Your task to perform on an android device: turn off wifi Image 0: 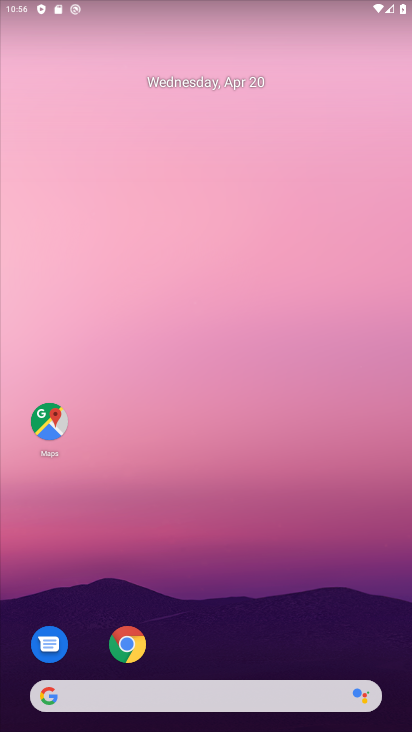
Step 0: drag from (256, 11) to (296, 442)
Your task to perform on an android device: turn off wifi Image 1: 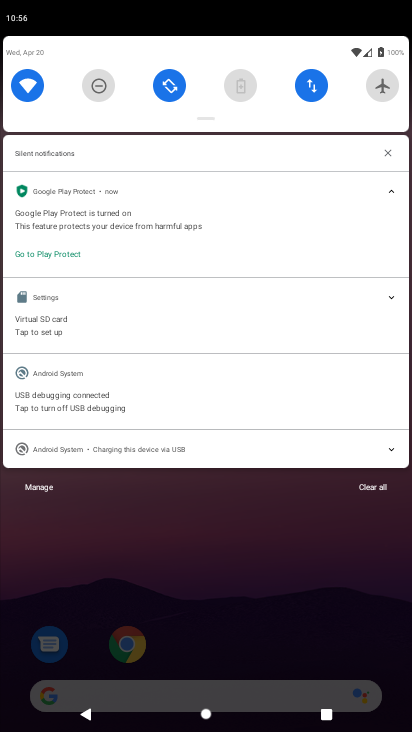
Step 1: click (37, 92)
Your task to perform on an android device: turn off wifi Image 2: 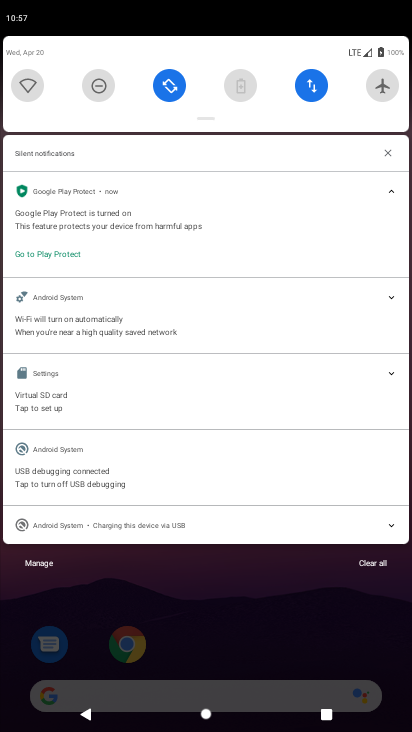
Step 2: task complete